Your task to perform on an android device: Go to Android settings Image 0: 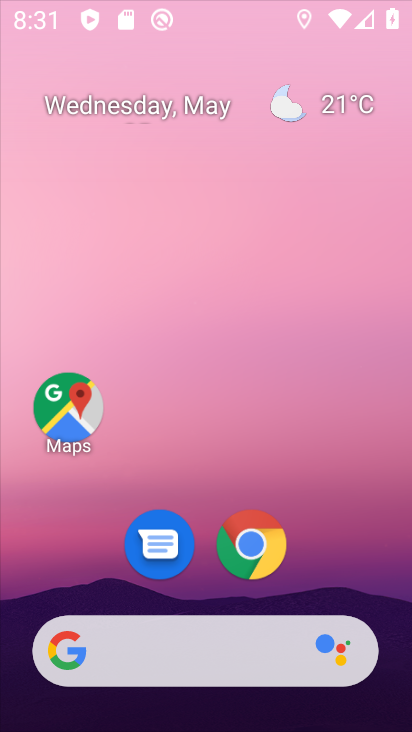
Step 0: drag from (321, 558) to (233, 38)
Your task to perform on an android device: Go to Android settings Image 1: 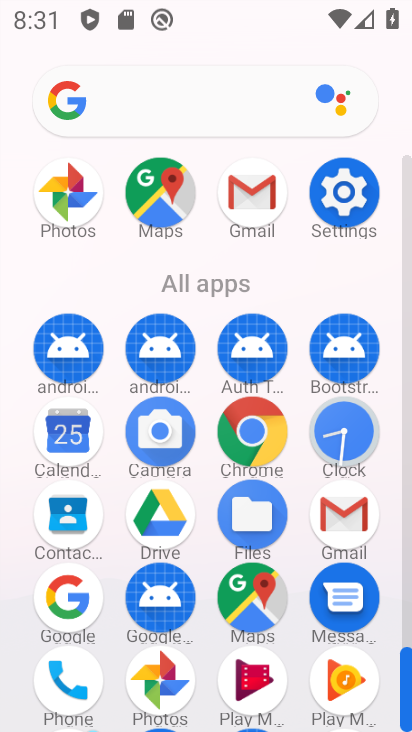
Step 1: drag from (11, 612) to (8, 348)
Your task to perform on an android device: Go to Android settings Image 2: 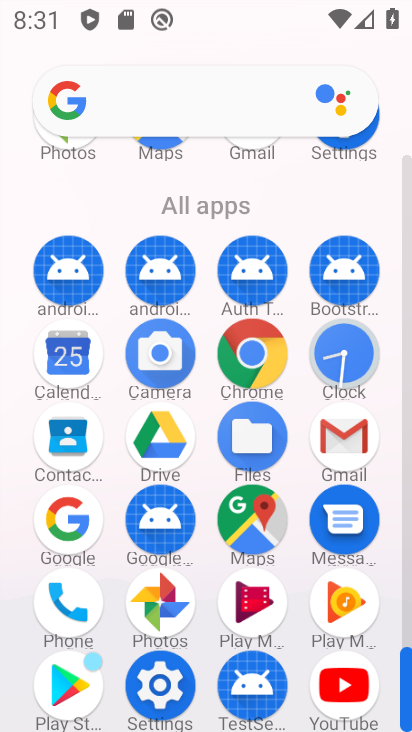
Step 2: click (160, 682)
Your task to perform on an android device: Go to Android settings Image 3: 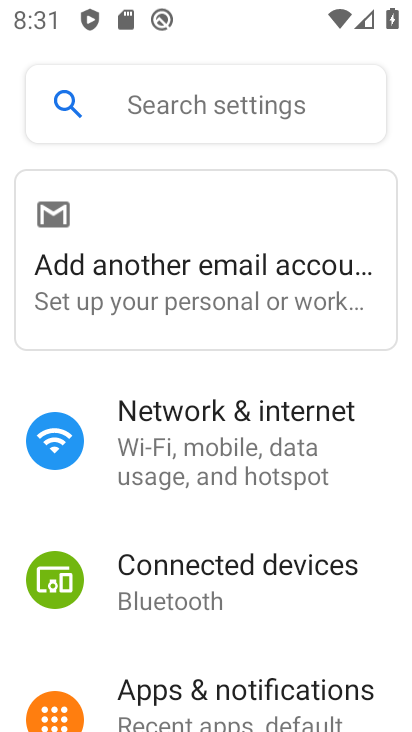
Step 3: task complete